Your task to perform on an android device: toggle notification dots Image 0: 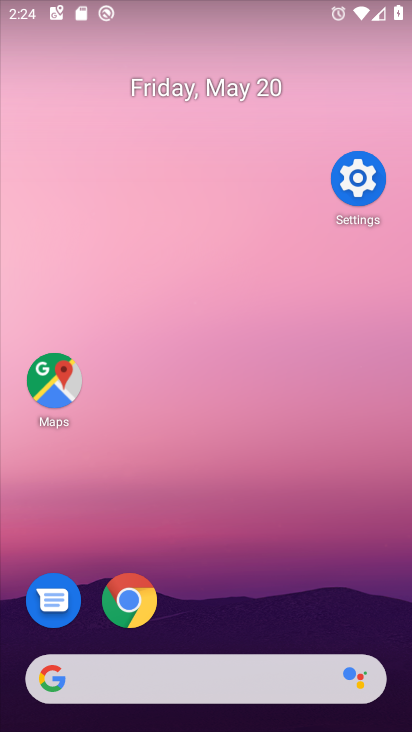
Step 0: drag from (264, 619) to (306, 227)
Your task to perform on an android device: toggle notification dots Image 1: 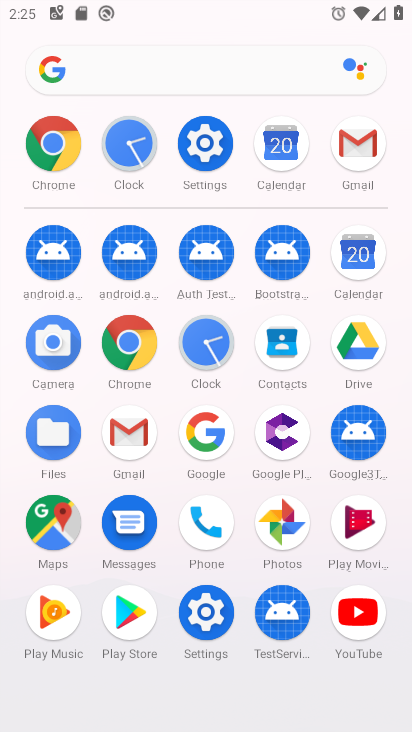
Step 1: click (199, 142)
Your task to perform on an android device: toggle notification dots Image 2: 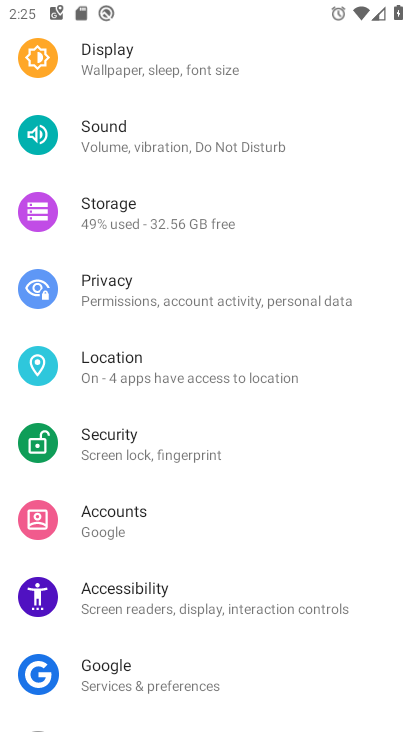
Step 2: drag from (213, 285) to (111, 730)
Your task to perform on an android device: toggle notification dots Image 3: 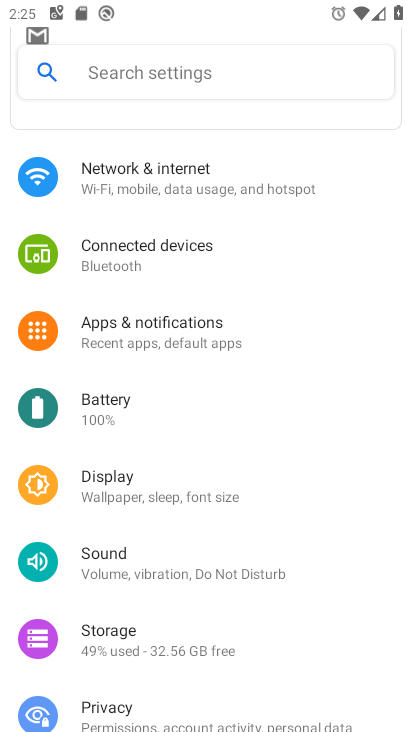
Step 3: click (149, 312)
Your task to perform on an android device: toggle notification dots Image 4: 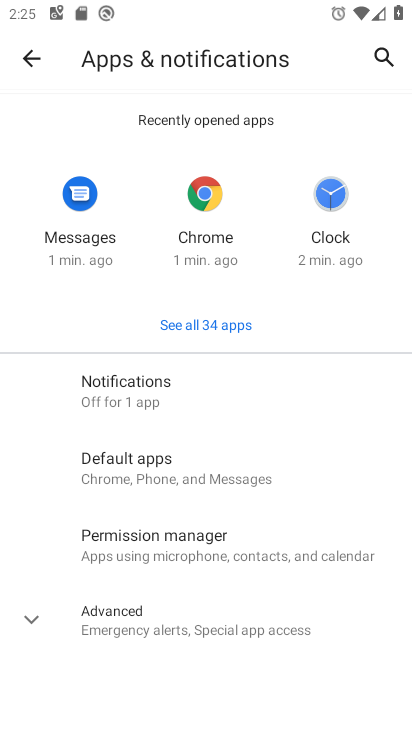
Step 4: drag from (278, 571) to (297, 323)
Your task to perform on an android device: toggle notification dots Image 5: 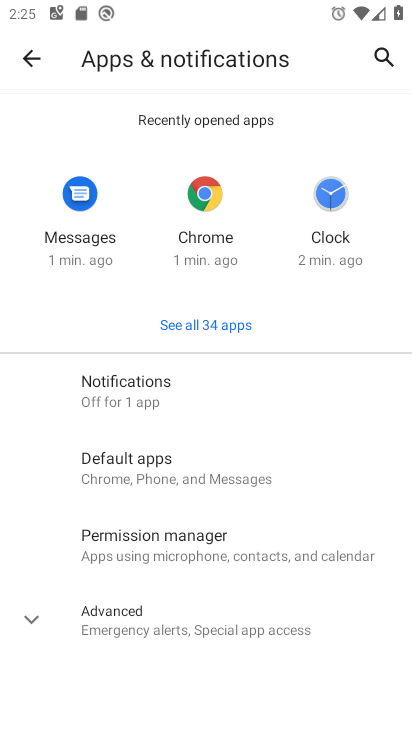
Step 5: click (179, 392)
Your task to perform on an android device: toggle notification dots Image 6: 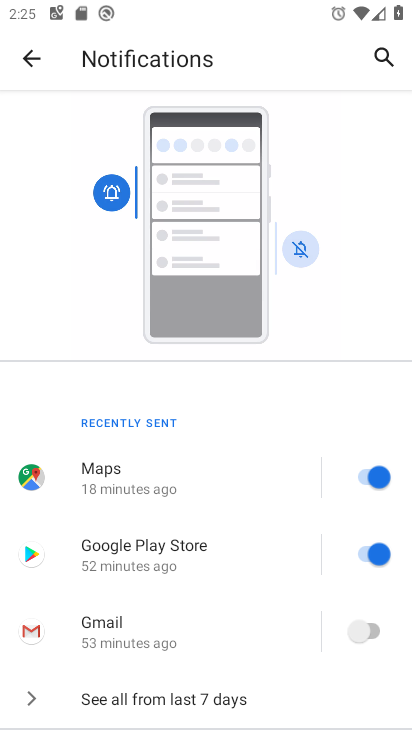
Step 6: click (153, 395)
Your task to perform on an android device: toggle notification dots Image 7: 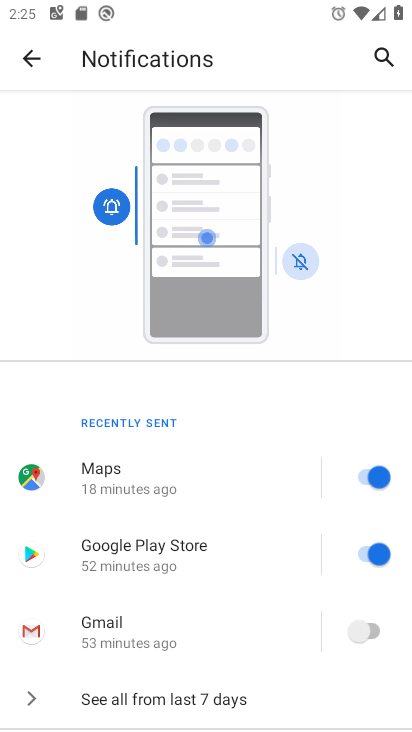
Step 7: drag from (189, 469) to (195, 320)
Your task to perform on an android device: toggle notification dots Image 8: 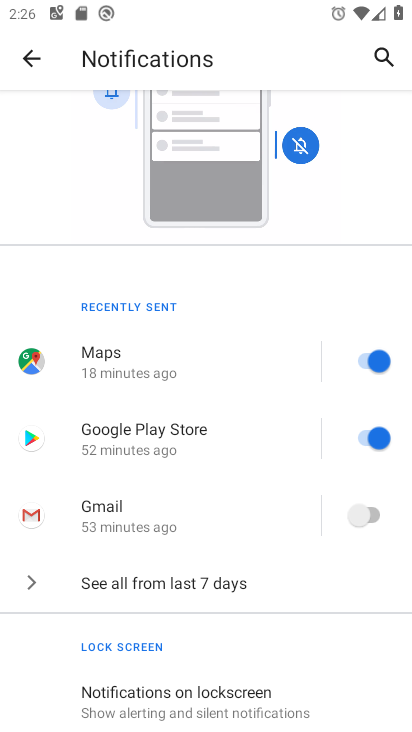
Step 8: drag from (218, 683) to (229, 271)
Your task to perform on an android device: toggle notification dots Image 9: 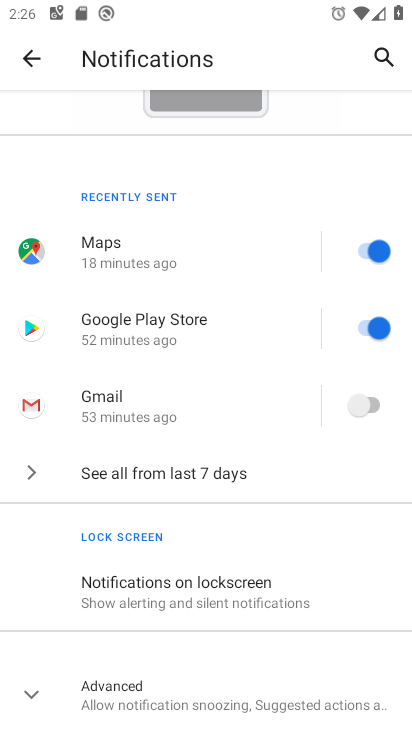
Step 9: click (170, 697)
Your task to perform on an android device: toggle notification dots Image 10: 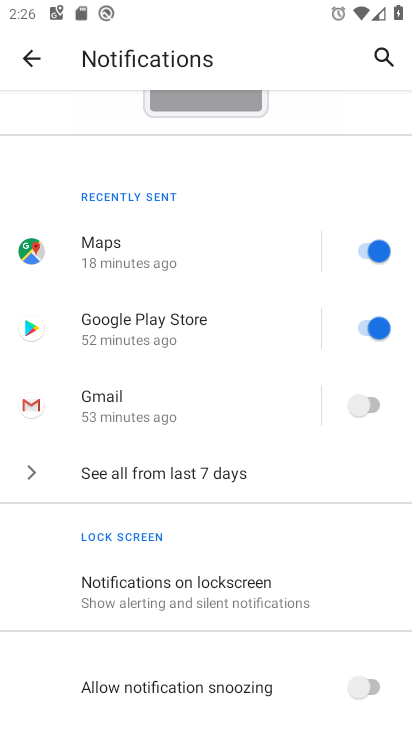
Step 10: drag from (185, 636) to (224, 307)
Your task to perform on an android device: toggle notification dots Image 11: 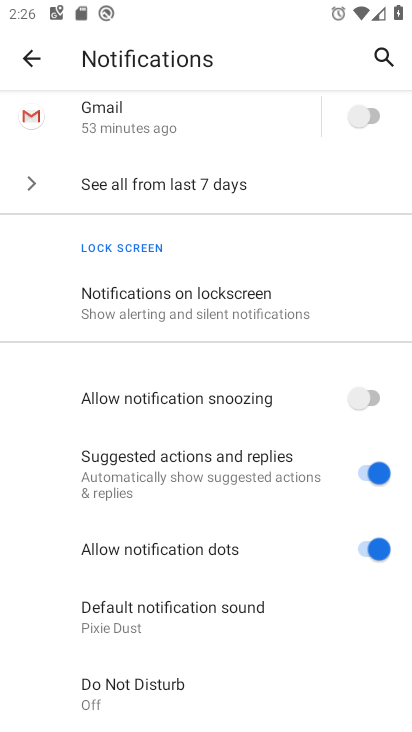
Step 11: click (348, 552)
Your task to perform on an android device: toggle notification dots Image 12: 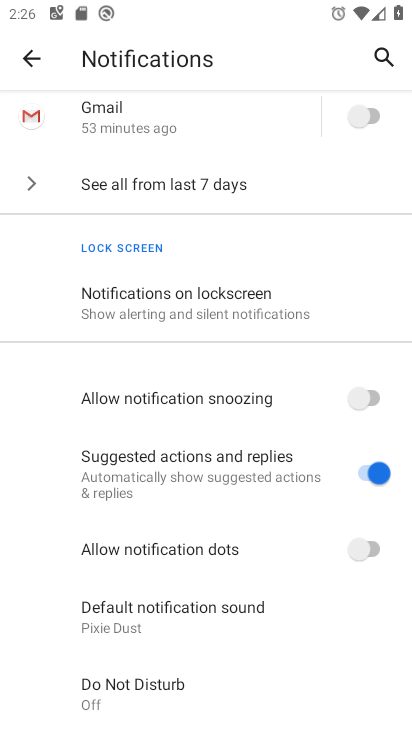
Step 12: task complete